Your task to perform on an android device: Open Google Image 0: 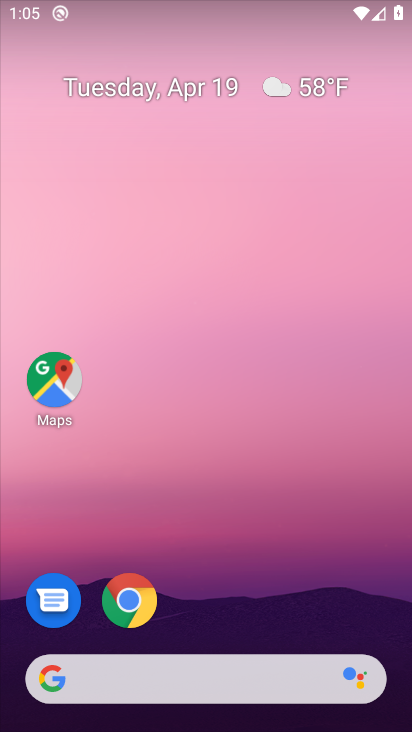
Step 0: drag from (292, 104) to (285, 44)
Your task to perform on an android device: Open Google Image 1: 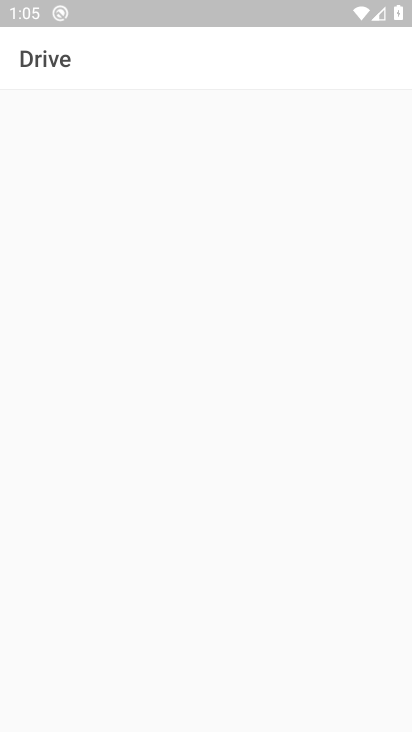
Step 1: press back button
Your task to perform on an android device: Open Google Image 2: 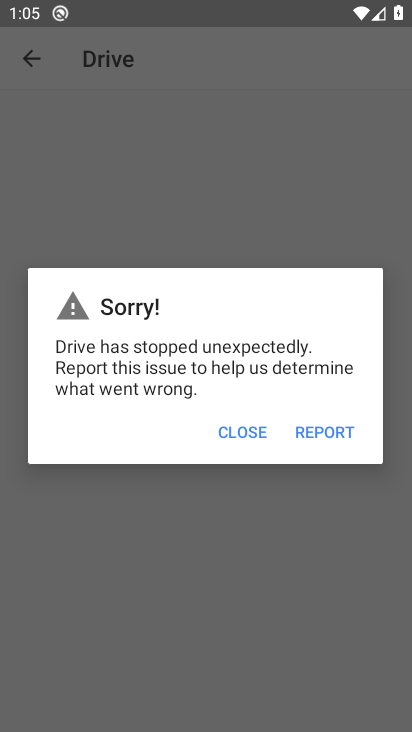
Step 2: press back button
Your task to perform on an android device: Open Google Image 3: 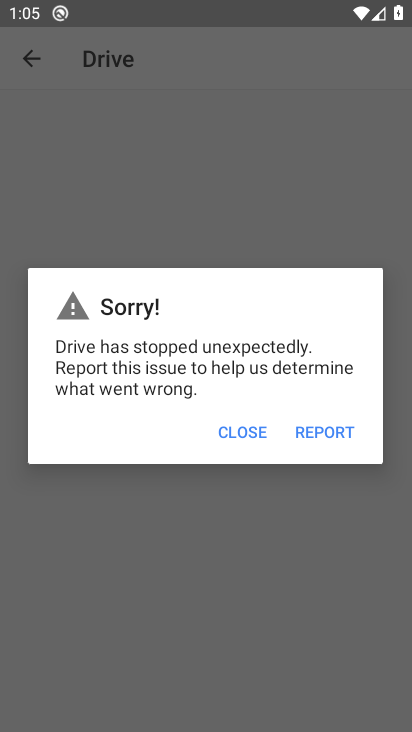
Step 3: click (244, 437)
Your task to perform on an android device: Open Google Image 4: 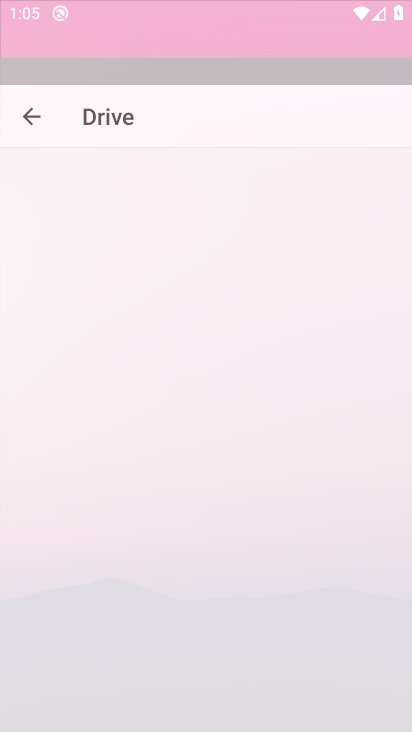
Step 4: click (247, 431)
Your task to perform on an android device: Open Google Image 5: 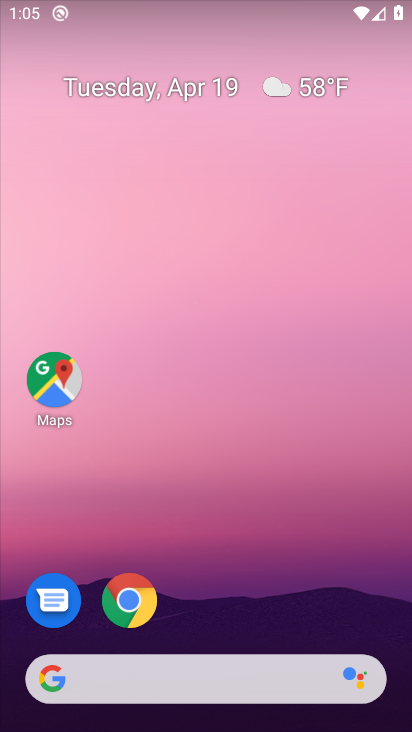
Step 5: drag from (253, 174) to (266, 100)
Your task to perform on an android device: Open Google Image 6: 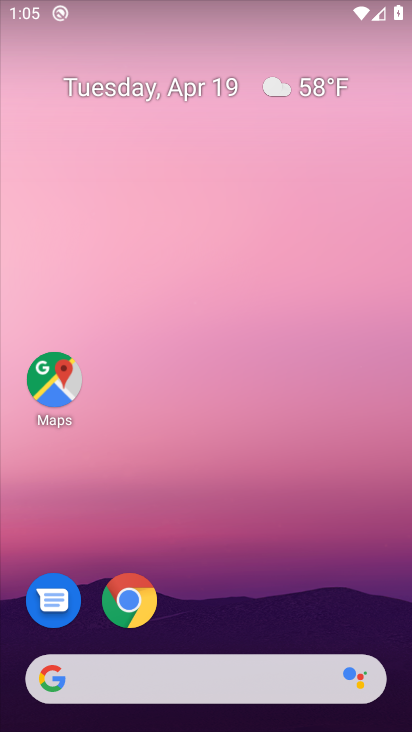
Step 6: drag from (184, 643) to (296, 10)
Your task to perform on an android device: Open Google Image 7: 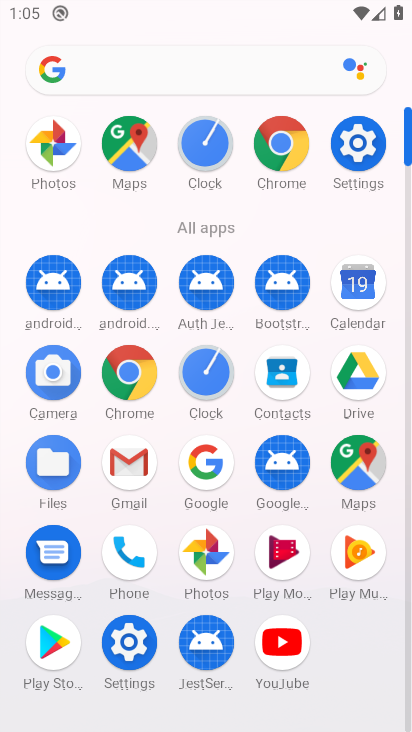
Step 7: click (204, 475)
Your task to perform on an android device: Open Google Image 8: 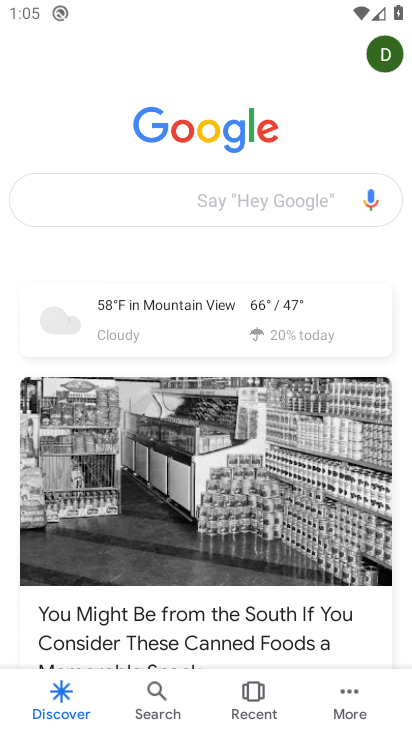
Step 8: task complete